Your task to perform on an android device: turn on sleep mode Image 0: 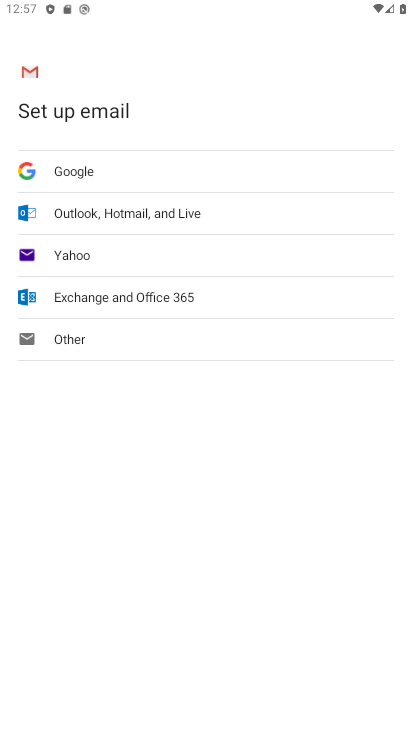
Step 0: press back button
Your task to perform on an android device: turn on sleep mode Image 1: 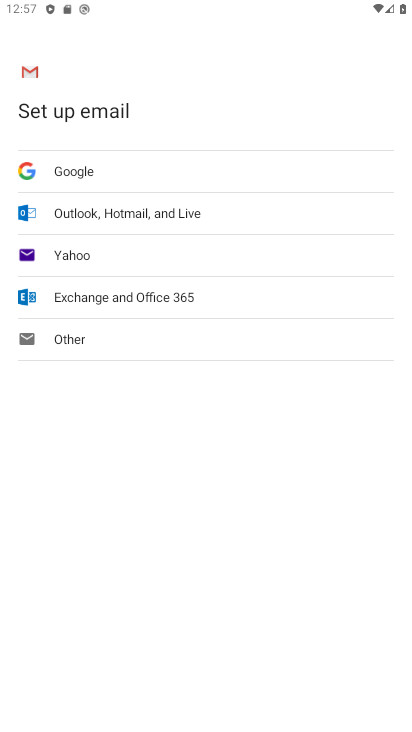
Step 1: press back button
Your task to perform on an android device: turn on sleep mode Image 2: 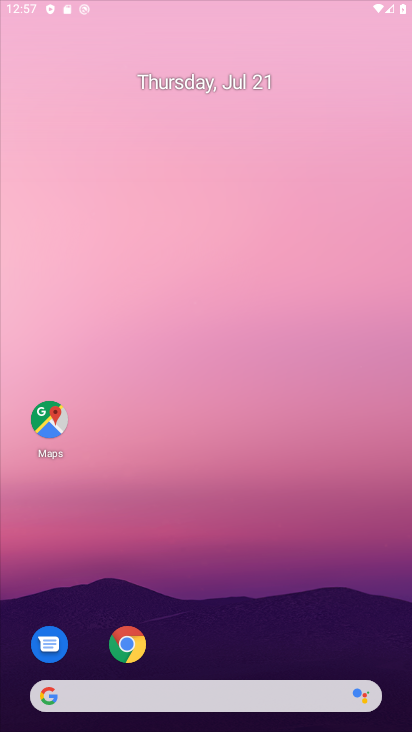
Step 2: press back button
Your task to perform on an android device: turn on sleep mode Image 3: 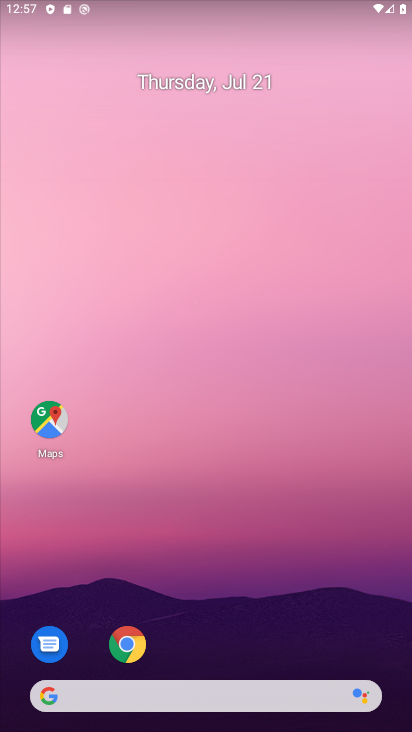
Step 3: drag from (227, 542) to (158, 26)
Your task to perform on an android device: turn on sleep mode Image 4: 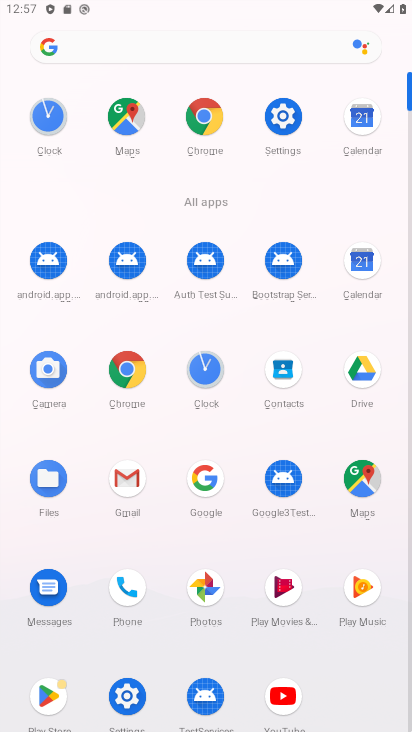
Step 4: click (287, 119)
Your task to perform on an android device: turn on sleep mode Image 5: 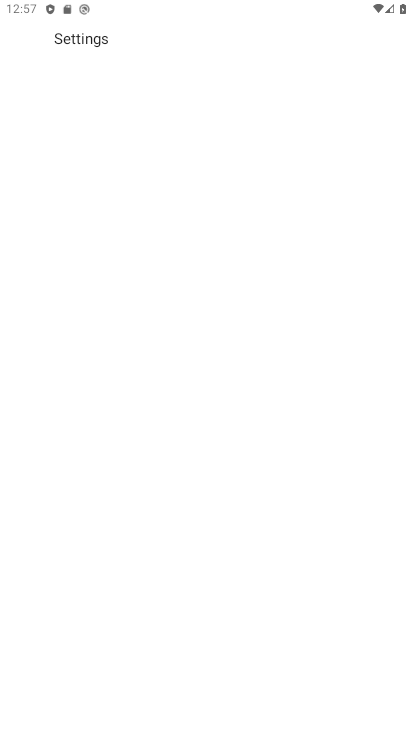
Step 5: click (285, 115)
Your task to perform on an android device: turn on sleep mode Image 6: 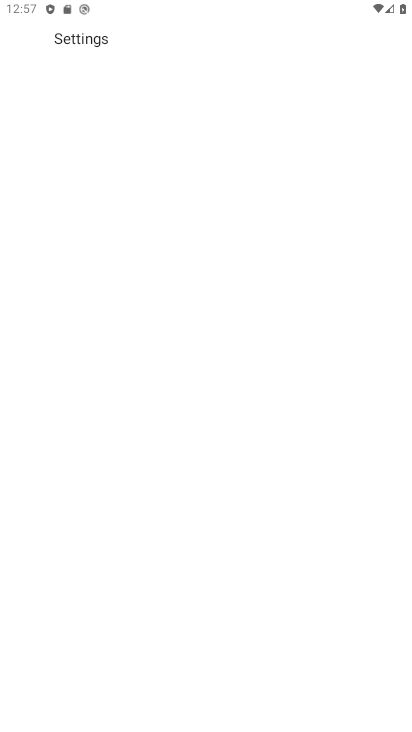
Step 6: click (285, 115)
Your task to perform on an android device: turn on sleep mode Image 7: 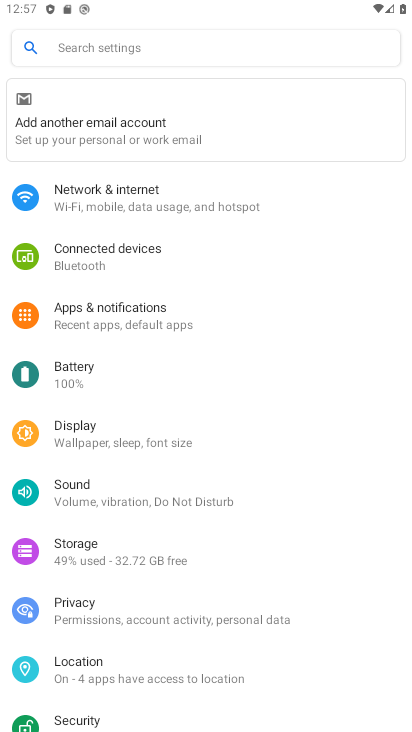
Step 7: click (286, 115)
Your task to perform on an android device: turn on sleep mode Image 8: 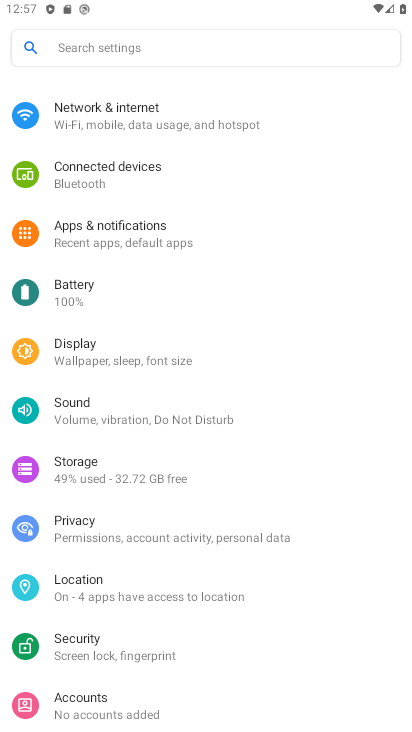
Step 8: click (287, 115)
Your task to perform on an android device: turn on sleep mode Image 9: 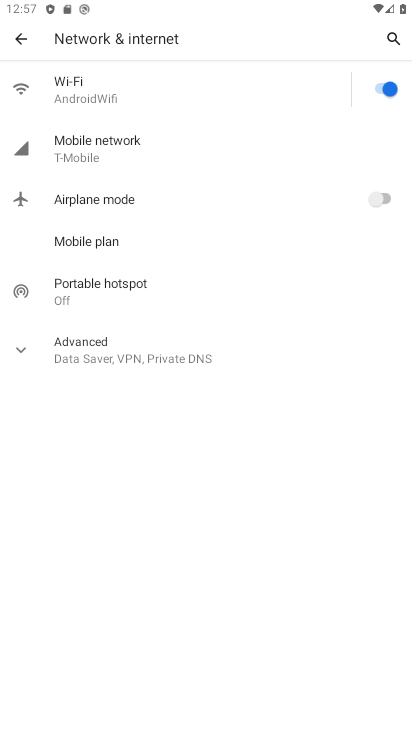
Step 9: click (19, 40)
Your task to perform on an android device: turn on sleep mode Image 10: 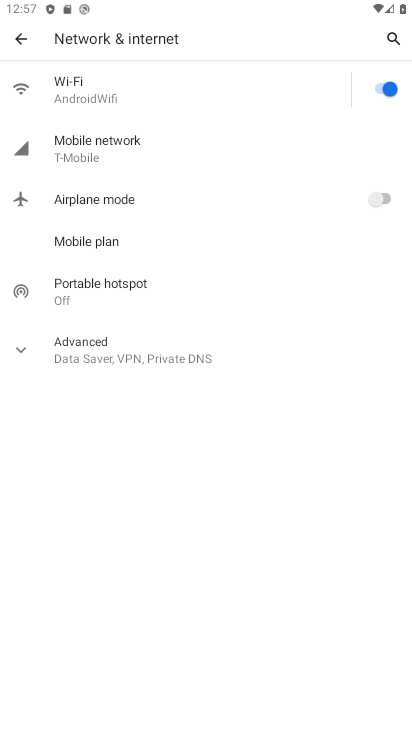
Step 10: click (19, 40)
Your task to perform on an android device: turn on sleep mode Image 11: 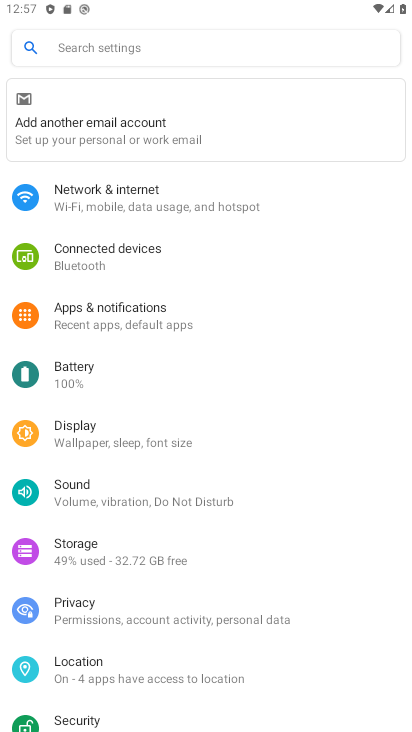
Step 11: drag from (112, 585) to (108, 338)
Your task to perform on an android device: turn on sleep mode Image 12: 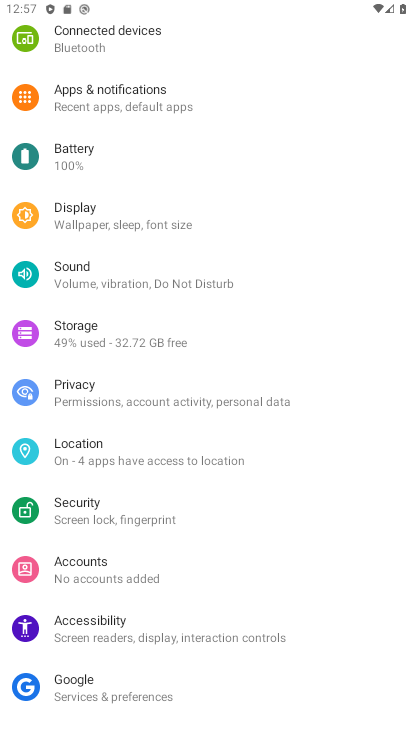
Step 12: click (85, 431)
Your task to perform on an android device: turn on sleep mode Image 13: 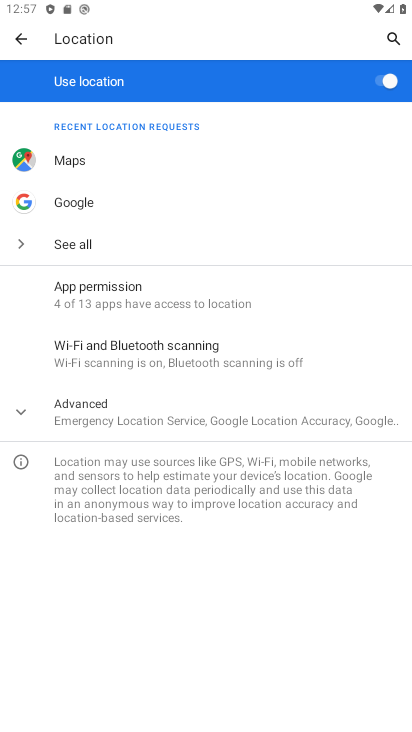
Step 13: click (19, 39)
Your task to perform on an android device: turn on sleep mode Image 14: 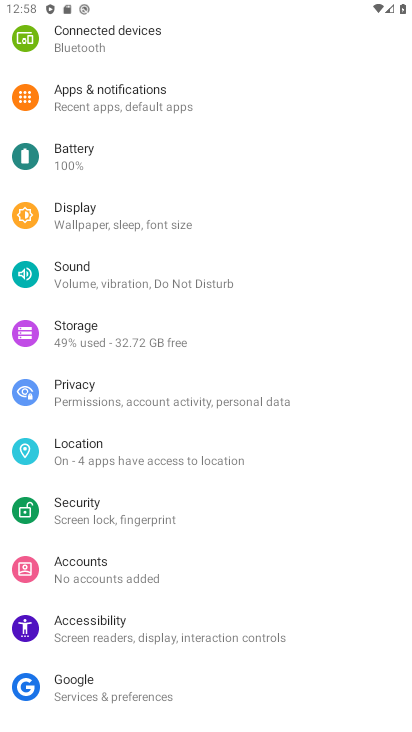
Step 14: click (89, 224)
Your task to perform on an android device: turn on sleep mode Image 15: 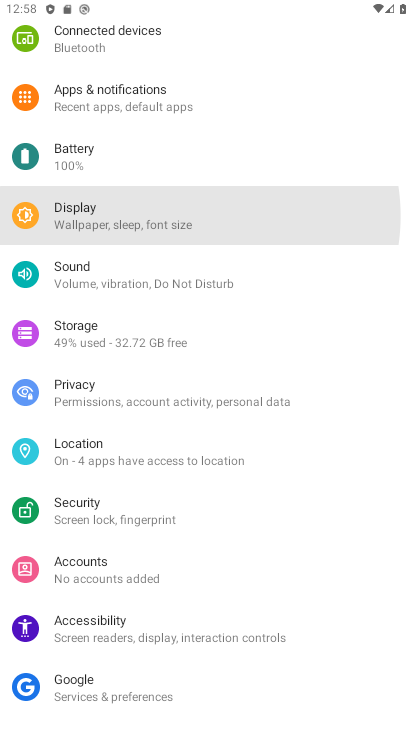
Step 15: click (87, 226)
Your task to perform on an android device: turn on sleep mode Image 16: 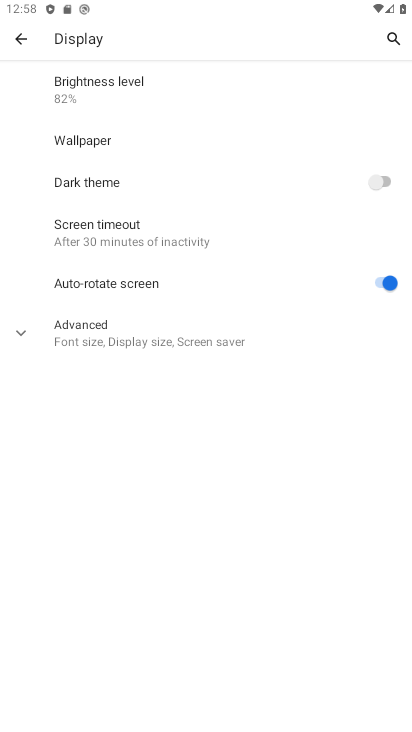
Step 16: click (20, 35)
Your task to perform on an android device: turn on sleep mode Image 17: 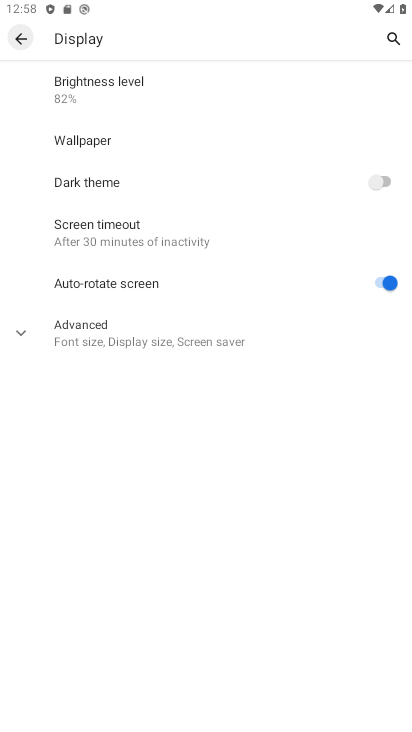
Step 17: click (20, 35)
Your task to perform on an android device: turn on sleep mode Image 18: 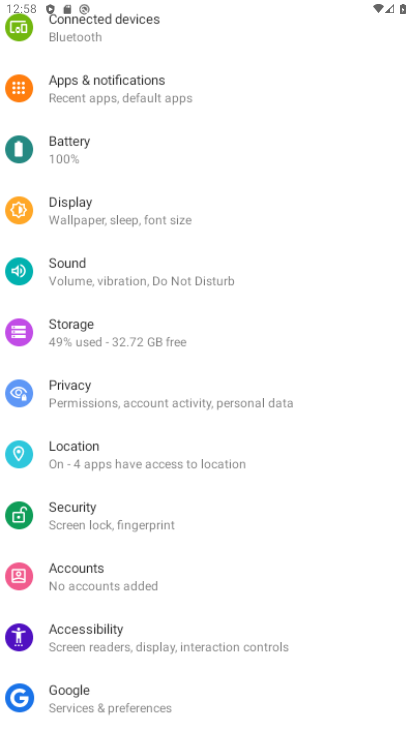
Step 18: click (21, 36)
Your task to perform on an android device: turn on sleep mode Image 19: 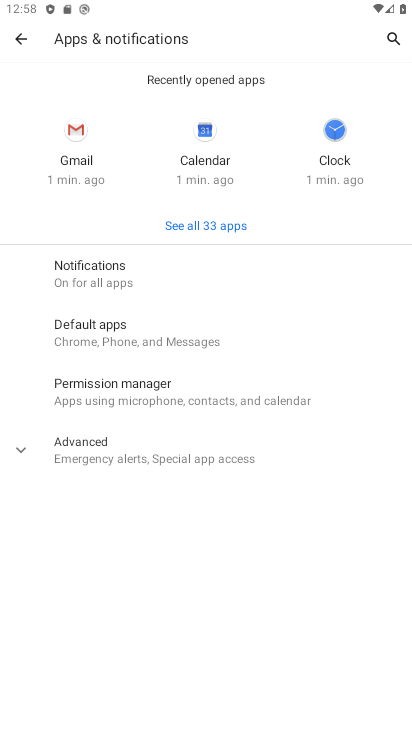
Step 19: click (18, 32)
Your task to perform on an android device: turn on sleep mode Image 20: 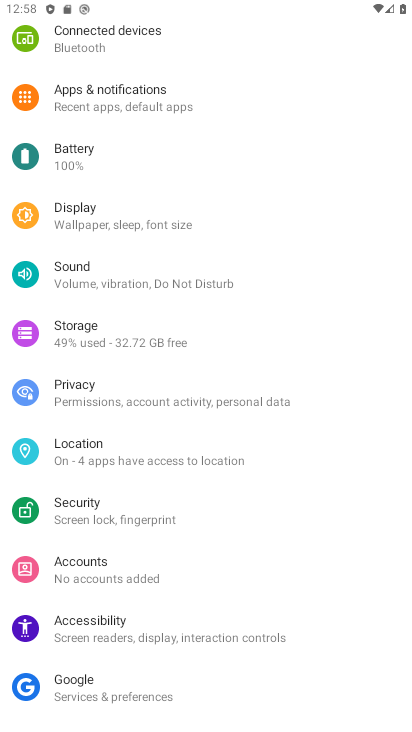
Step 20: click (102, 215)
Your task to perform on an android device: turn on sleep mode Image 21: 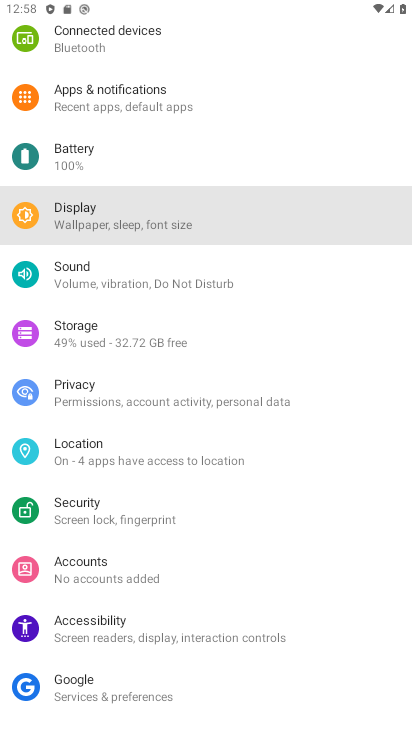
Step 21: click (109, 218)
Your task to perform on an android device: turn on sleep mode Image 22: 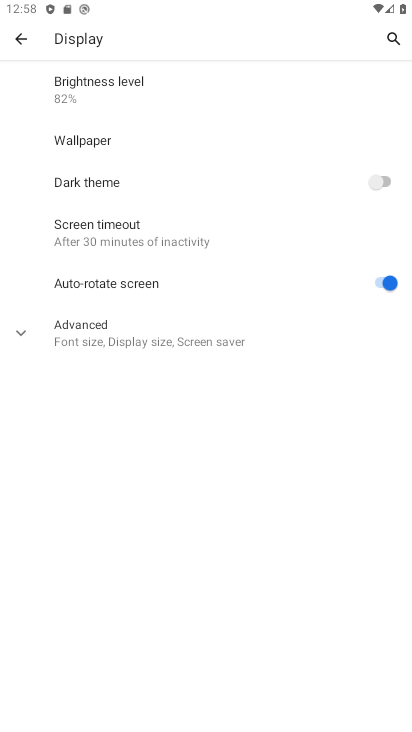
Step 22: click (111, 221)
Your task to perform on an android device: turn on sleep mode Image 23: 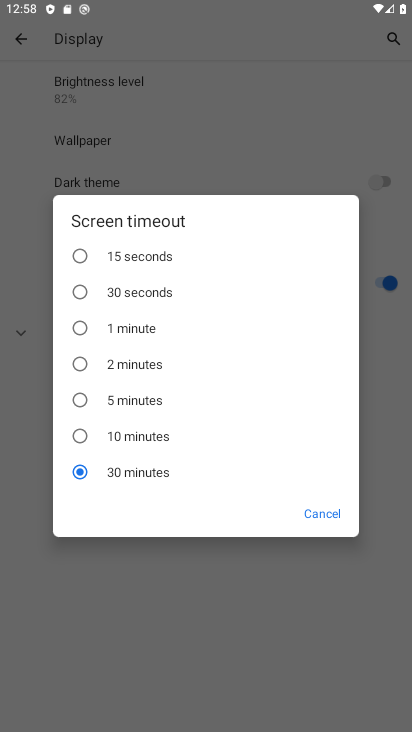
Step 23: click (80, 356)
Your task to perform on an android device: turn on sleep mode Image 24: 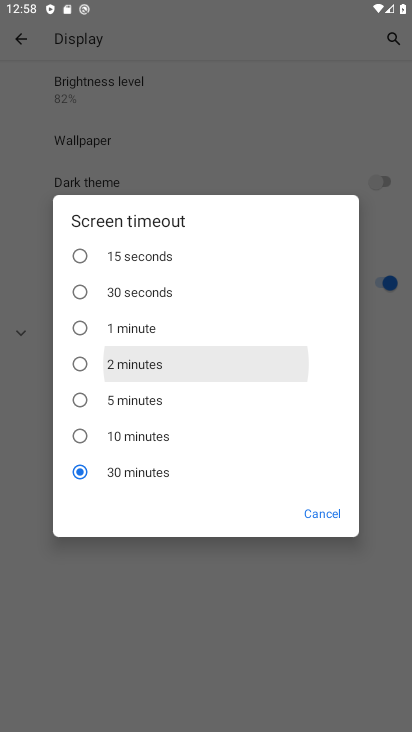
Step 24: click (77, 355)
Your task to perform on an android device: turn on sleep mode Image 25: 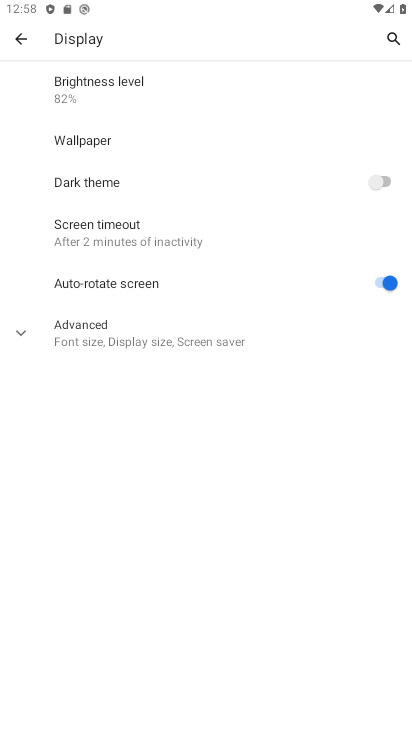
Step 25: click (77, 355)
Your task to perform on an android device: turn on sleep mode Image 26: 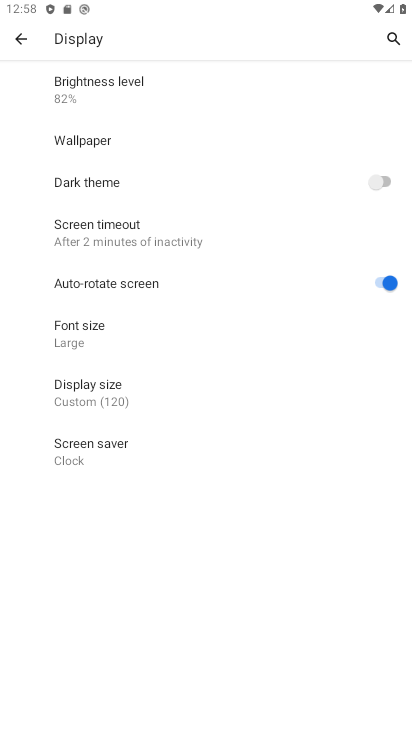
Step 26: click (73, 358)
Your task to perform on an android device: turn on sleep mode Image 27: 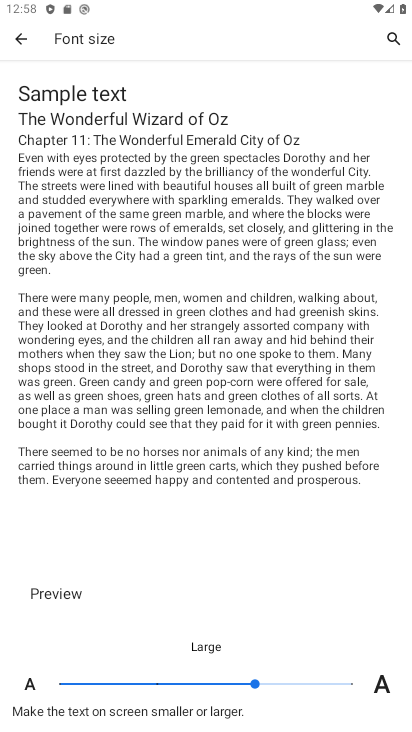
Step 27: task complete